Your task to perform on an android device: Open wifi settings Image 0: 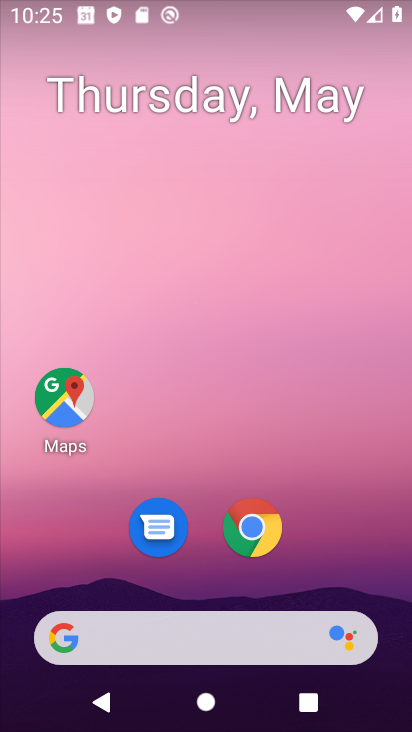
Step 0: drag from (222, 722) to (228, 207)
Your task to perform on an android device: Open wifi settings Image 1: 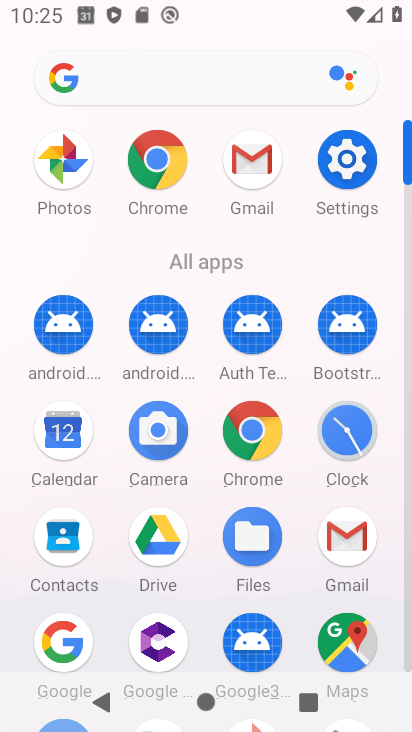
Step 1: click (346, 158)
Your task to perform on an android device: Open wifi settings Image 2: 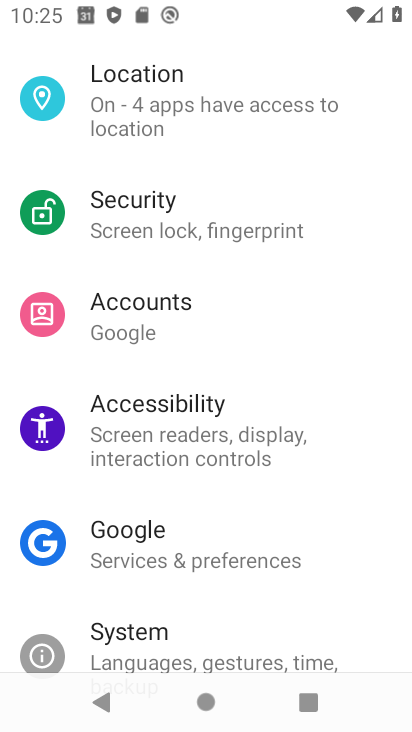
Step 2: drag from (276, 133) to (262, 598)
Your task to perform on an android device: Open wifi settings Image 3: 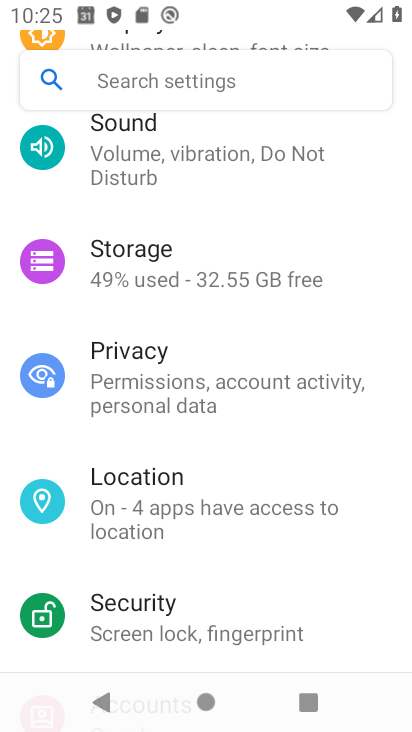
Step 3: drag from (245, 138) to (242, 524)
Your task to perform on an android device: Open wifi settings Image 4: 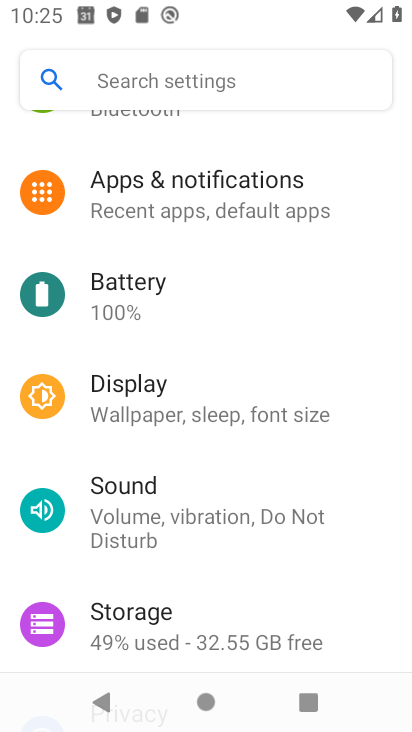
Step 4: drag from (264, 162) to (264, 548)
Your task to perform on an android device: Open wifi settings Image 5: 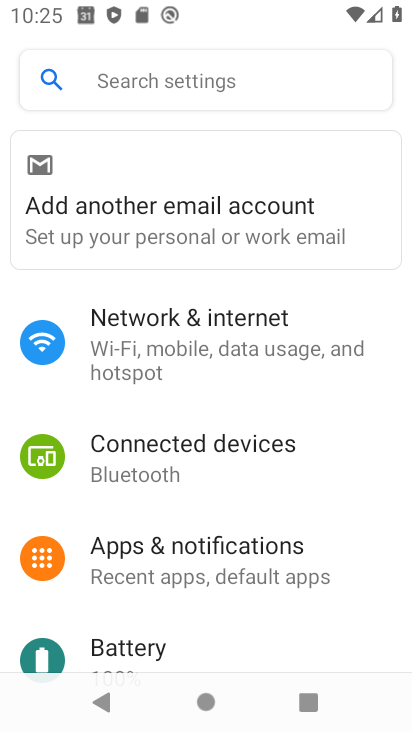
Step 5: drag from (277, 150) to (301, 555)
Your task to perform on an android device: Open wifi settings Image 6: 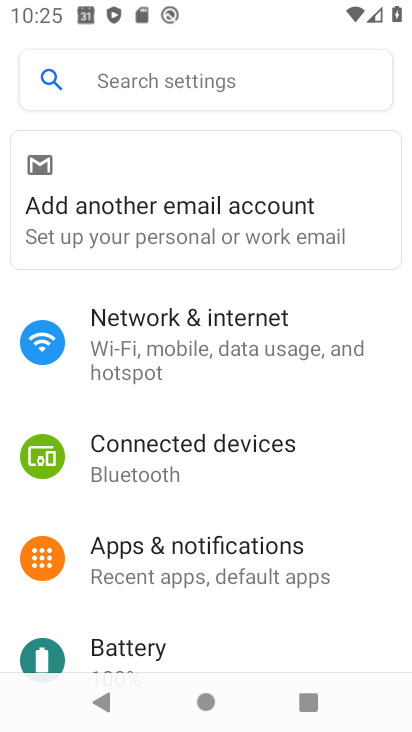
Step 6: click (140, 354)
Your task to perform on an android device: Open wifi settings Image 7: 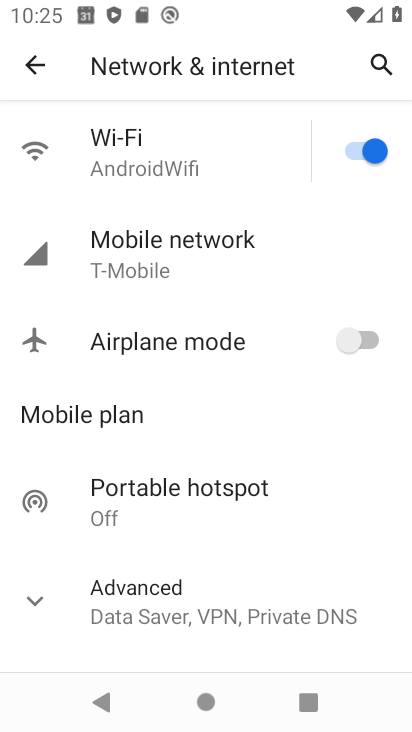
Step 7: click (121, 161)
Your task to perform on an android device: Open wifi settings Image 8: 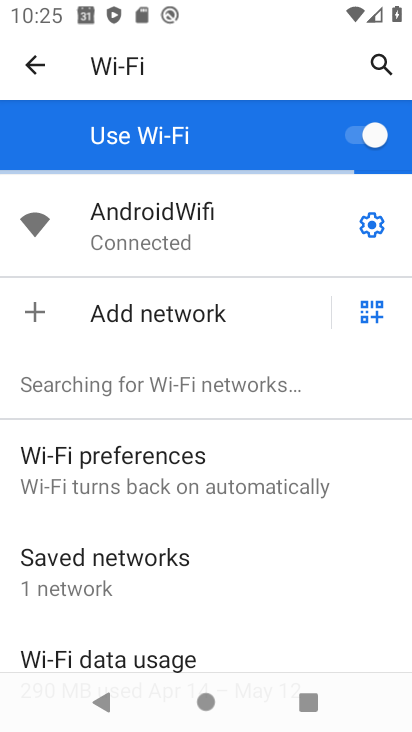
Step 8: task complete